Your task to perform on an android device: empty trash in the gmail app Image 0: 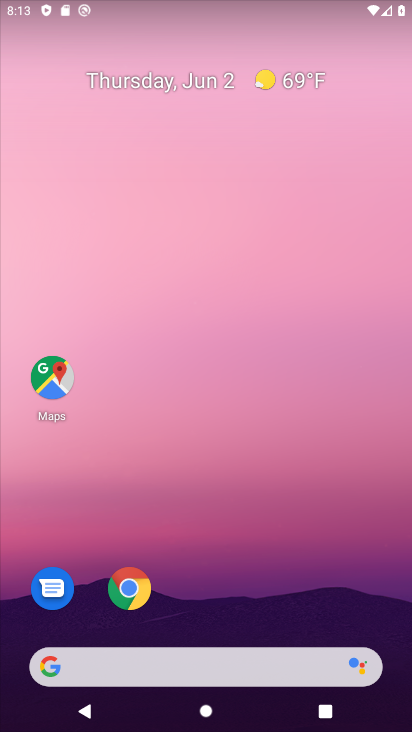
Step 0: drag from (248, 723) to (242, 87)
Your task to perform on an android device: empty trash in the gmail app Image 1: 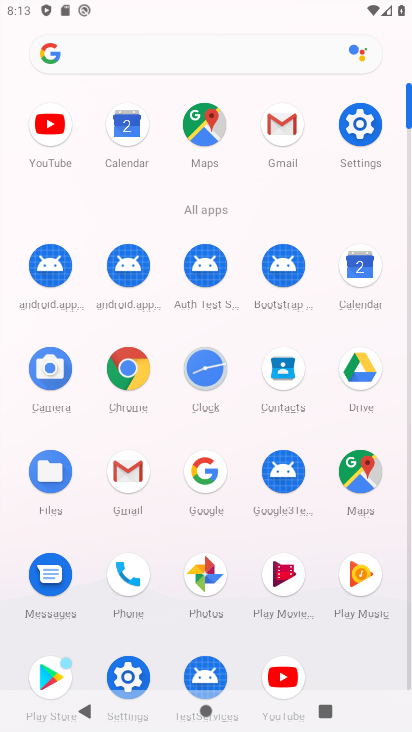
Step 1: click (132, 479)
Your task to perform on an android device: empty trash in the gmail app Image 2: 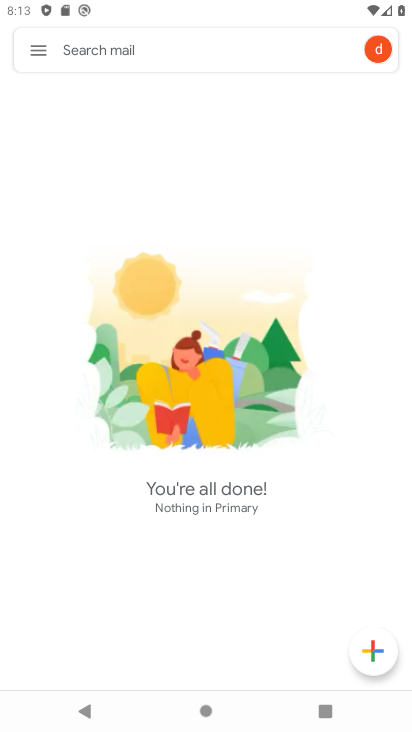
Step 2: click (40, 48)
Your task to perform on an android device: empty trash in the gmail app Image 3: 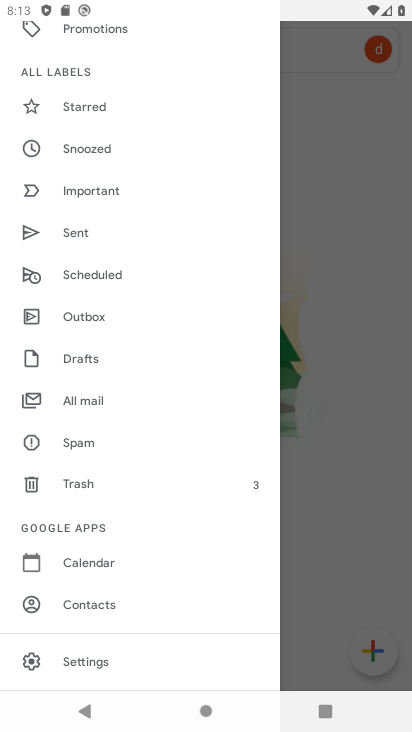
Step 3: click (81, 485)
Your task to perform on an android device: empty trash in the gmail app Image 4: 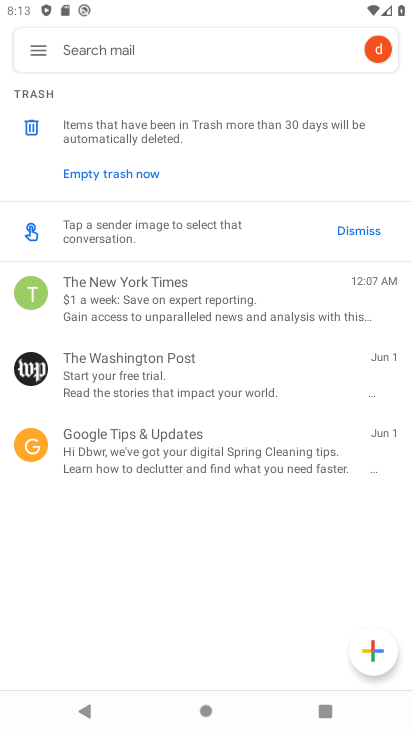
Step 4: click (37, 53)
Your task to perform on an android device: empty trash in the gmail app Image 5: 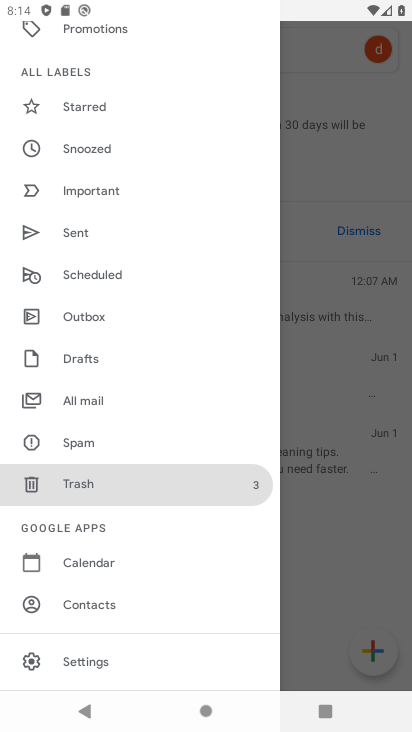
Step 5: click (78, 488)
Your task to perform on an android device: empty trash in the gmail app Image 6: 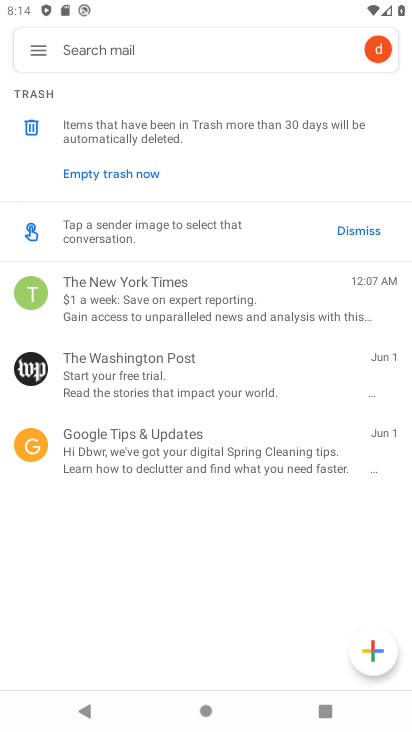
Step 6: click (103, 173)
Your task to perform on an android device: empty trash in the gmail app Image 7: 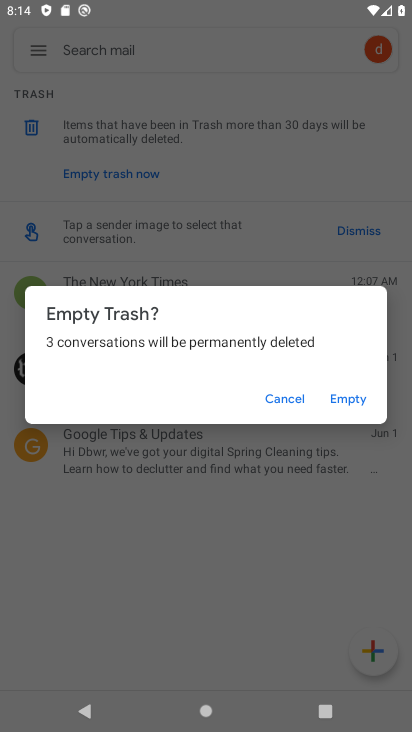
Step 7: click (344, 397)
Your task to perform on an android device: empty trash in the gmail app Image 8: 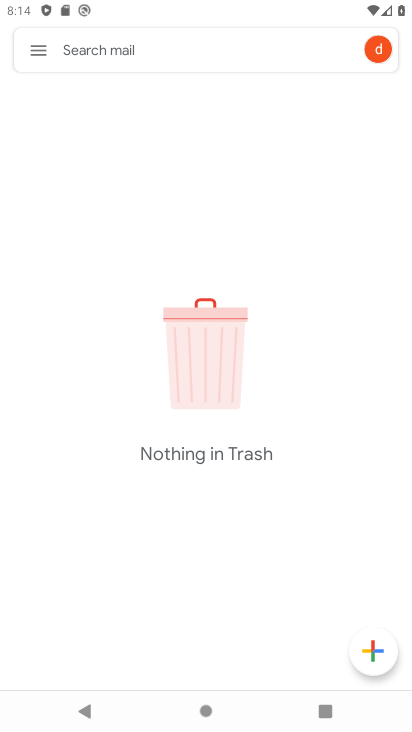
Step 8: task complete